Your task to perform on an android device: choose inbox layout in the gmail app Image 0: 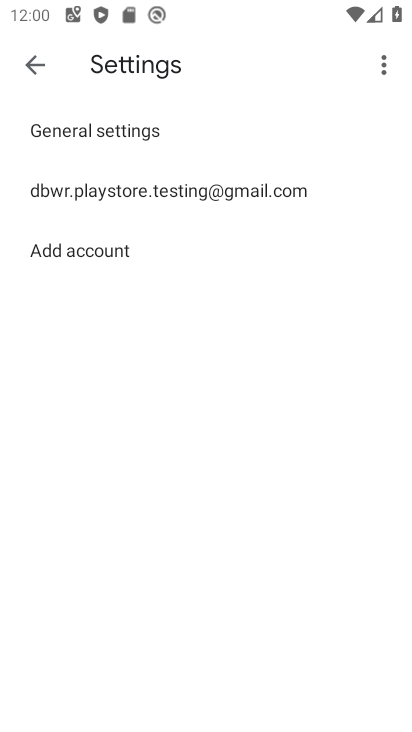
Step 0: click (274, 172)
Your task to perform on an android device: choose inbox layout in the gmail app Image 1: 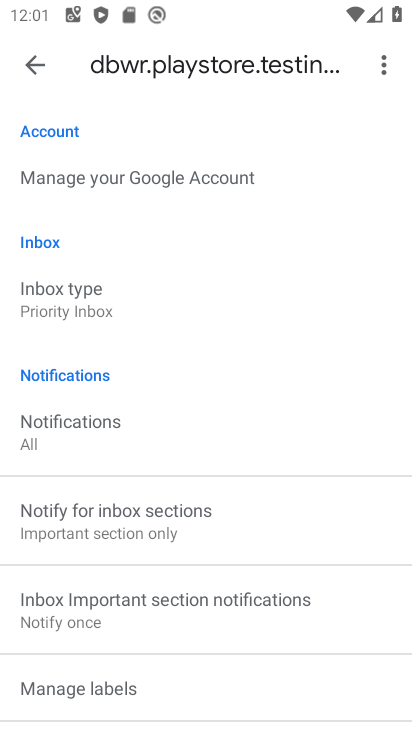
Step 1: click (87, 281)
Your task to perform on an android device: choose inbox layout in the gmail app Image 2: 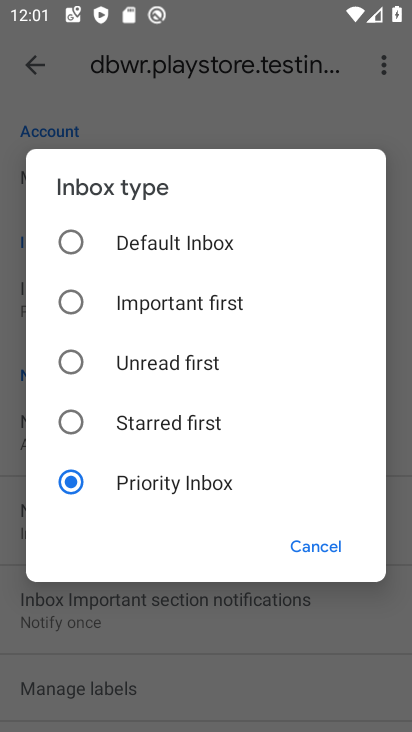
Step 2: click (307, 535)
Your task to perform on an android device: choose inbox layout in the gmail app Image 3: 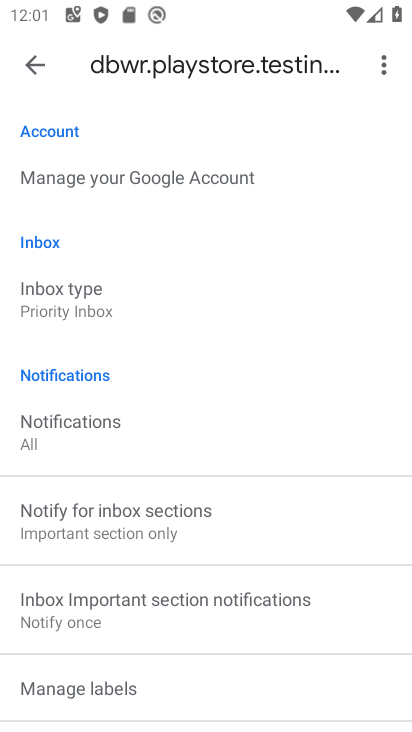
Step 3: click (25, 81)
Your task to perform on an android device: choose inbox layout in the gmail app Image 4: 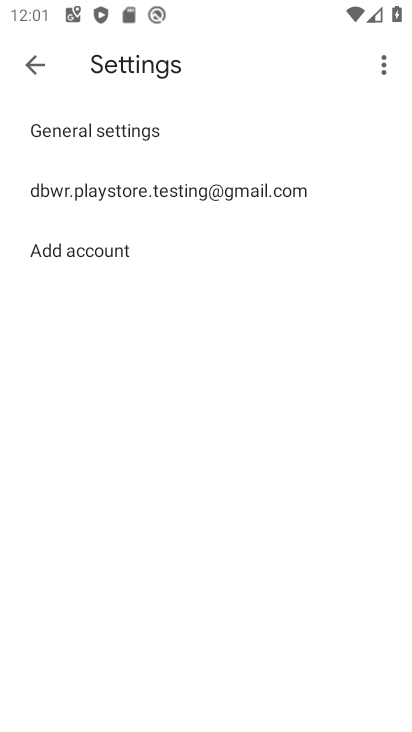
Step 4: click (138, 132)
Your task to perform on an android device: choose inbox layout in the gmail app Image 5: 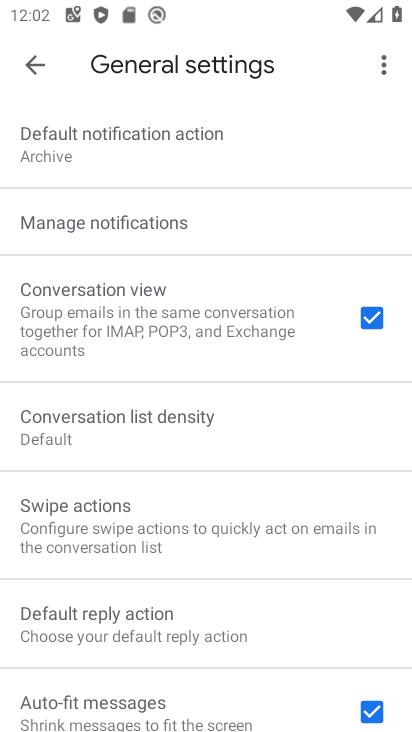
Step 5: click (41, 58)
Your task to perform on an android device: choose inbox layout in the gmail app Image 6: 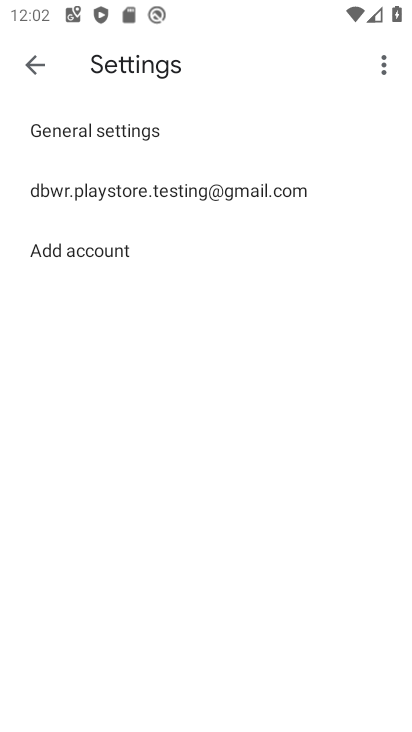
Step 6: click (60, 175)
Your task to perform on an android device: choose inbox layout in the gmail app Image 7: 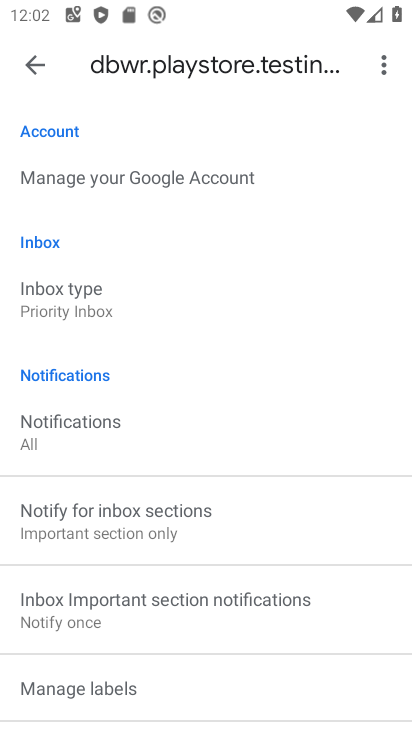
Step 7: task complete